Your task to perform on an android device: Search for seafood restaurants on Google Maps Image 0: 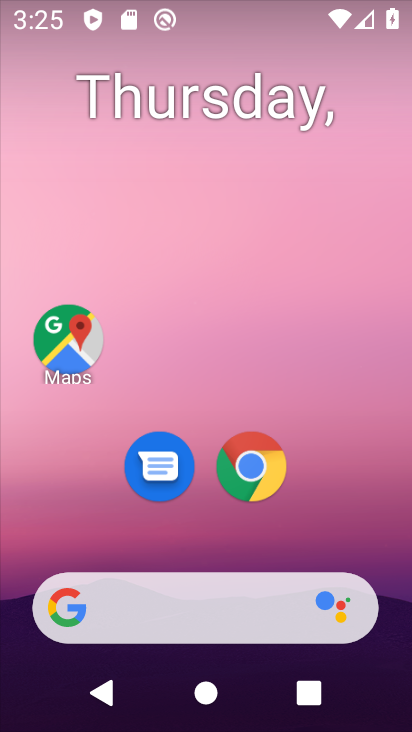
Step 0: drag from (214, 611) to (235, 32)
Your task to perform on an android device: Search for seafood restaurants on Google Maps Image 1: 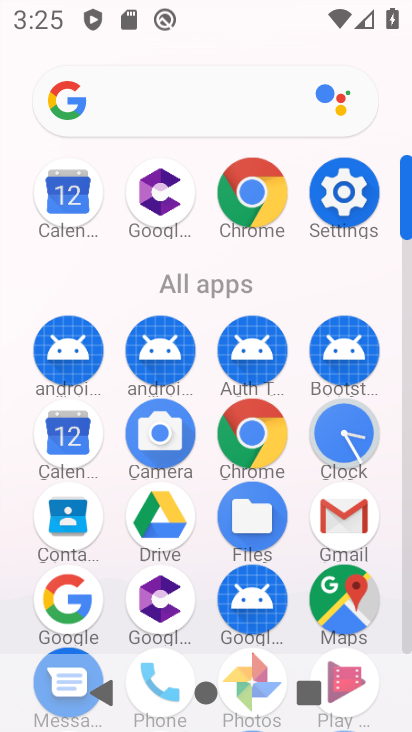
Step 1: click (338, 602)
Your task to perform on an android device: Search for seafood restaurants on Google Maps Image 2: 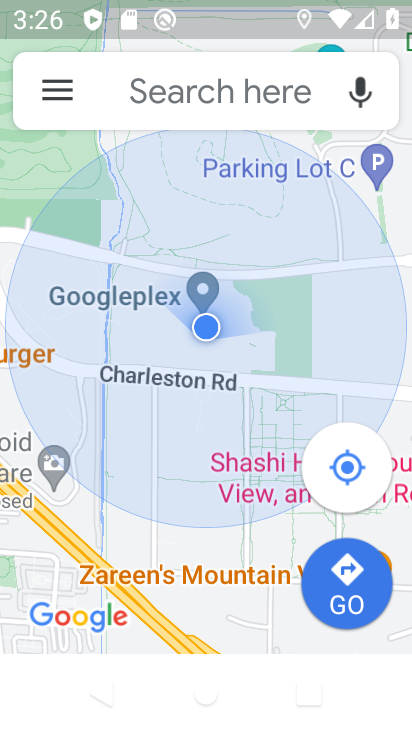
Step 2: click (253, 78)
Your task to perform on an android device: Search for seafood restaurants on Google Maps Image 3: 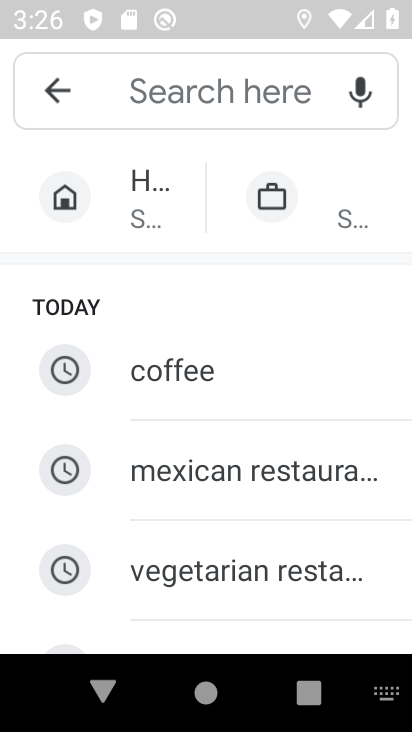
Step 3: type "seafood restaurant"
Your task to perform on an android device: Search for seafood restaurants on Google Maps Image 4: 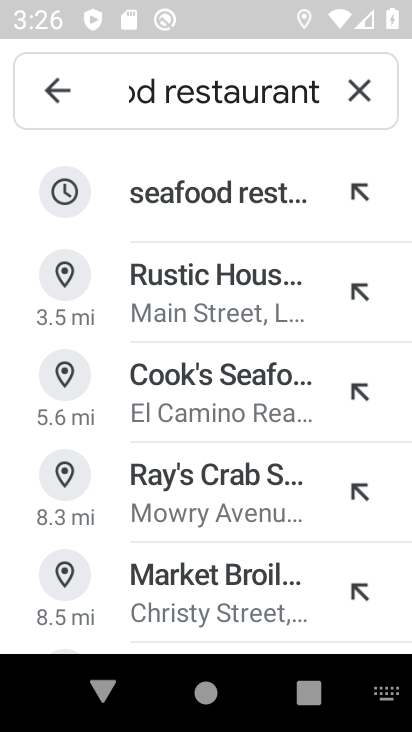
Step 4: click (272, 234)
Your task to perform on an android device: Search for seafood restaurants on Google Maps Image 5: 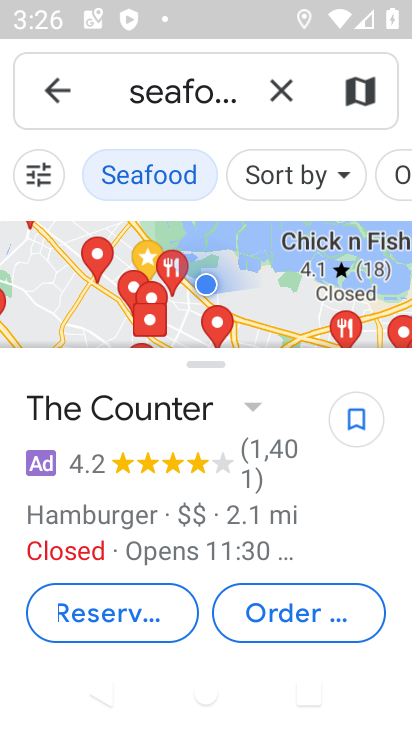
Step 5: task complete